Your task to perform on an android device: snooze an email in the gmail app Image 0: 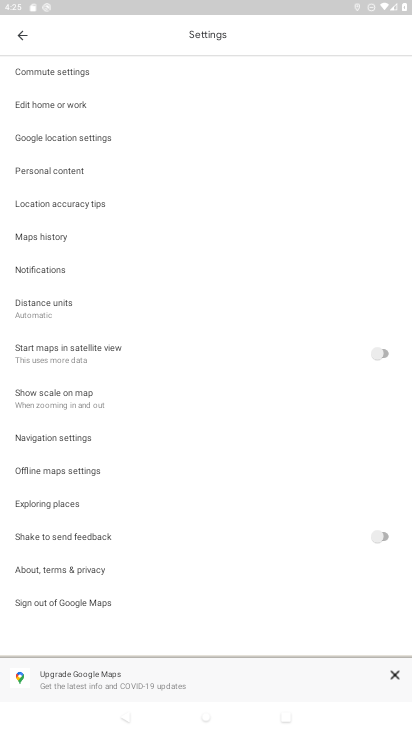
Step 0: click (254, 626)
Your task to perform on an android device: snooze an email in the gmail app Image 1: 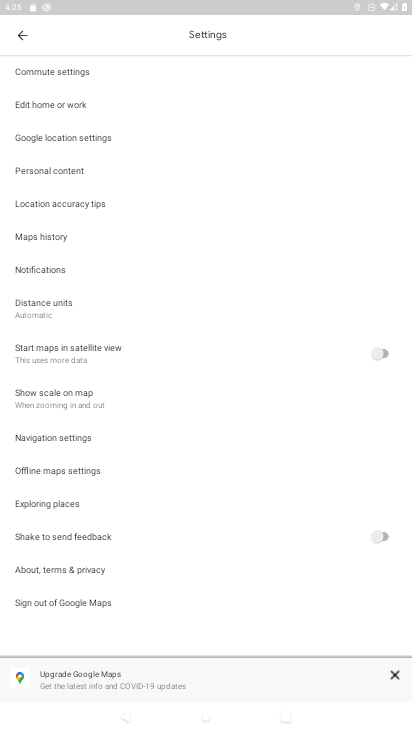
Step 1: press home button
Your task to perform on an android device: snooze an email in the gmail app Image 2: 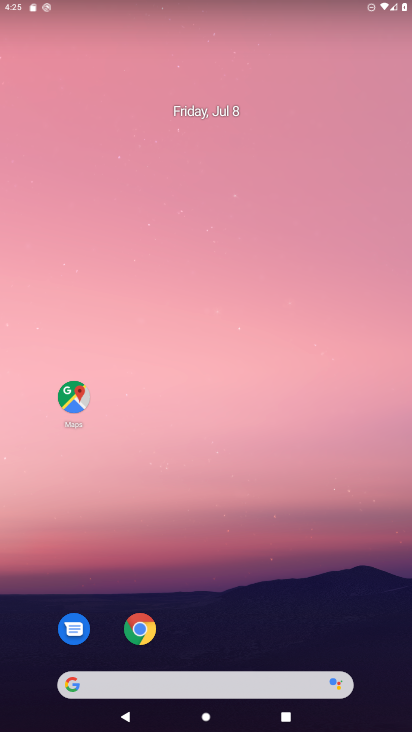
Step 2: drag from (291, 594) to (260, 100)
Your task to perform on an android device: snooze an email in the gmail app Image 3: 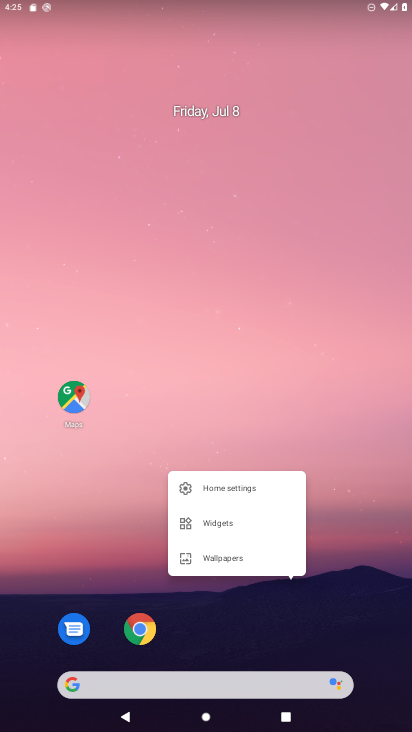
Step 3: click (219, 258)
Your task to perform on an android device: snooze an email in the gmail app Image 4: 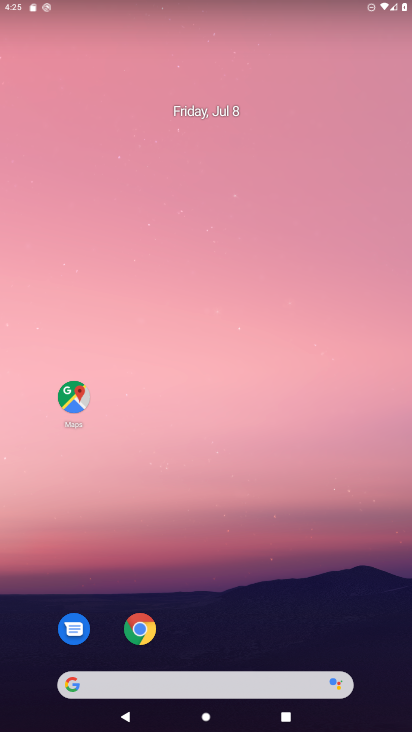
Step 4: drag from (268, 635) to (250, 170)
Your task to perform on an android device: snooze an email in the gmail app Image 5: 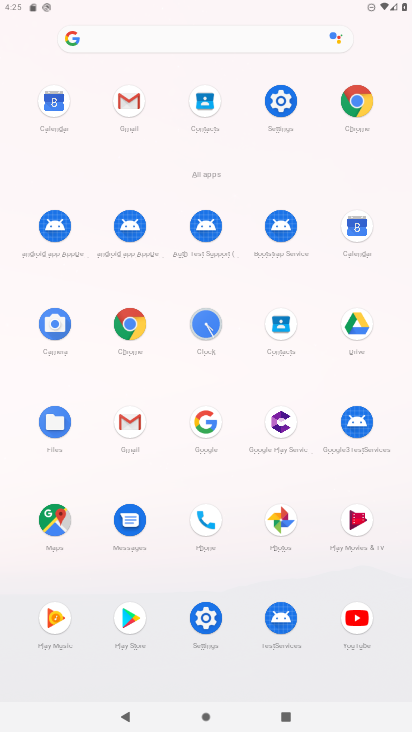
Step 5: click (121, 136)
Your task to perform on an android device: snooze an email in the gmail app Image 6: 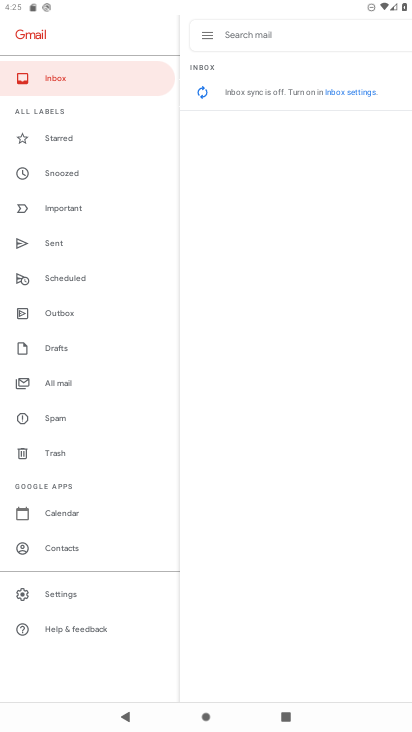
Step 6: click (86, 391)
Your task to perform on an android device: snooze an email in the gmail app Image 7: 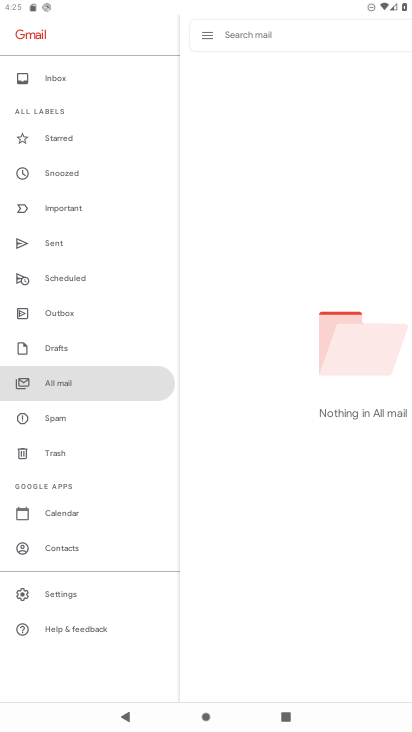
Step 7: task complete